Your task to perform on an android device: Go to display settings Image 0: 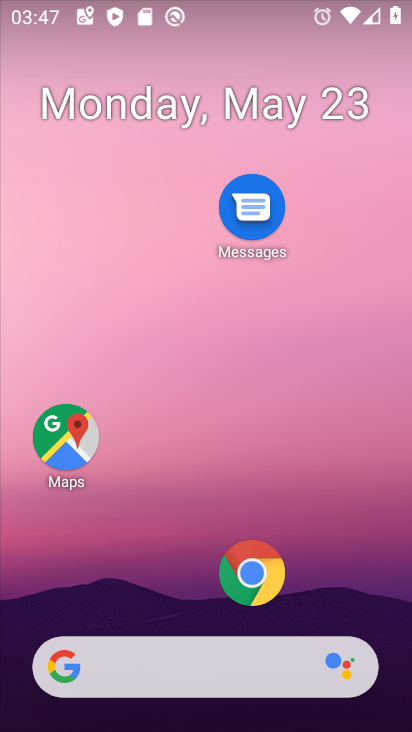
Step 0: click (407, 582)
Your task to perform on an android device: Go to display settings Image 1: 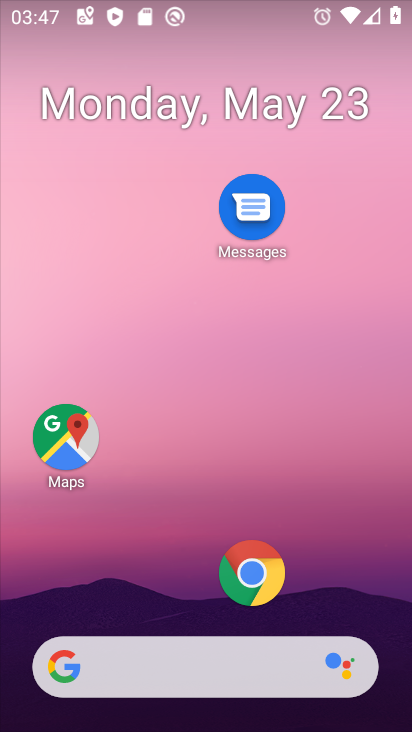
Step 1: drag from (278, 583) to (410, 237)
Your task to perform on an android device: Go to display settings Image 2: 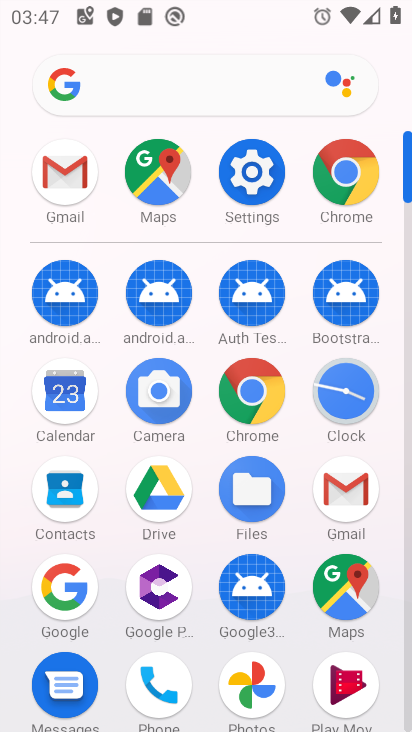
Step 2: click (227, 191)
Your task to perform on an android device: Go to display settings Image 3: 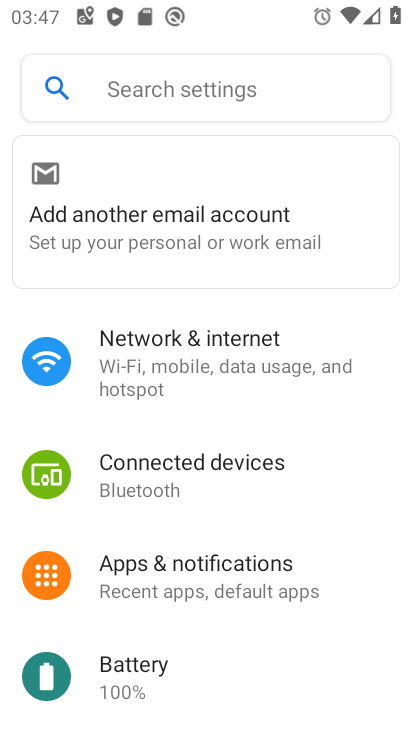
Step 3: drag from (227, 694) to (156, 108)
Your task to perform on an android device: Go to display settings Image 4: 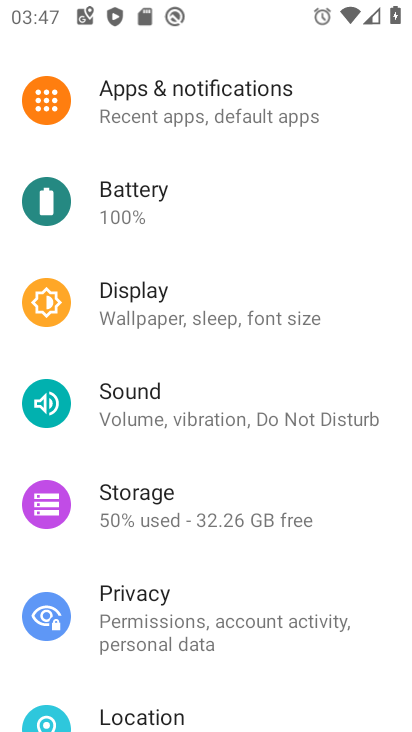
Step 4: click (176, 298)
Your task to perform on an android device: Go to display settings Image 5: 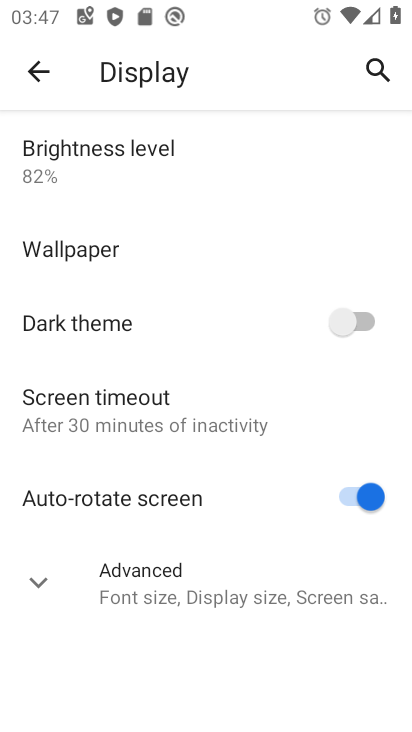
Step 5: task complete